Your task to perform on an android device: read, delete, or share a saved page in the chrome app Image 0: 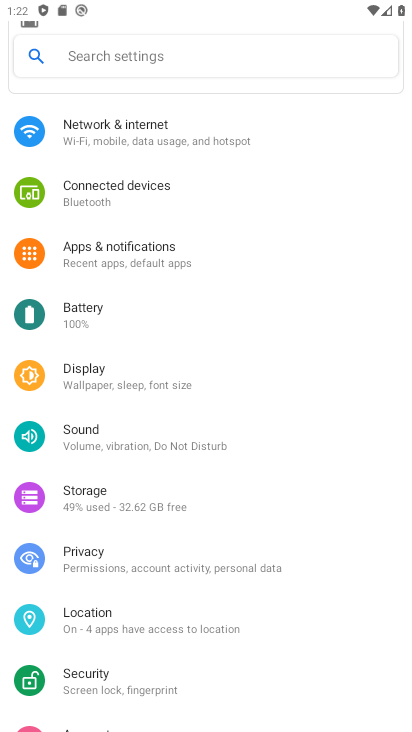
Step 0: press home button
Your task to perform on an android device: read, delete, or share a saved page in the chrome app Image 1: 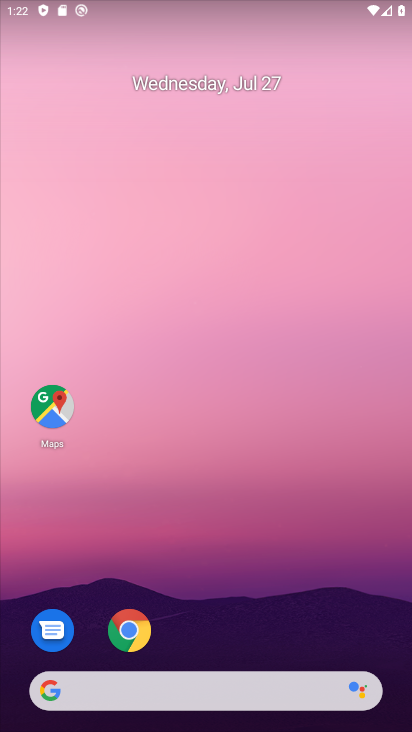
Step 1: click (132, 630)
Your task to perform on an android device: read, delete, or share a saved page in the chrome app Image 2: 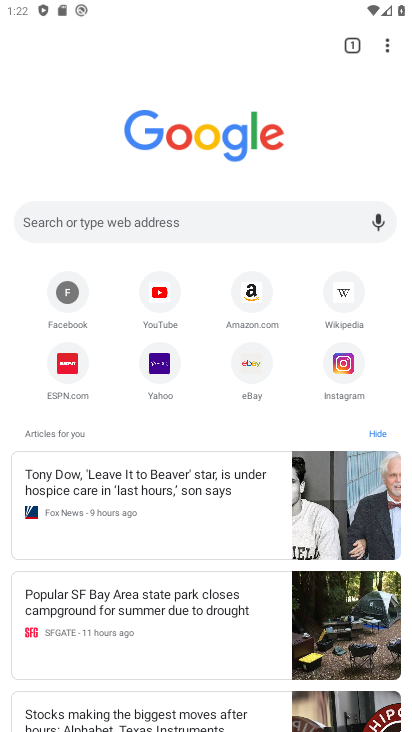
Step 2: click (386, 51)
Your task to perform on an android device: read, delete, or share a saved page in the chrome app Image 3: 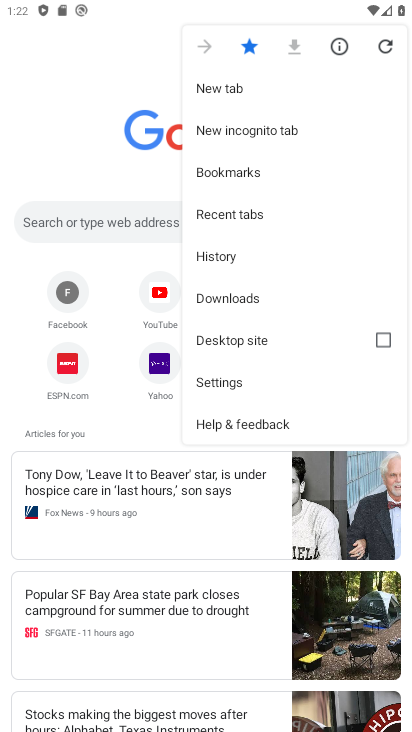
Step 3: click (223, 305)
Your task to perform on an android device: read, delete, or share a saved page in the chrome app Image 4: 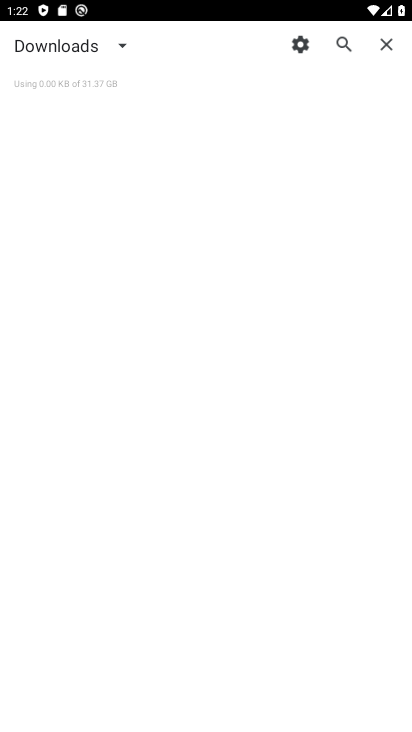
Step 4: click (119, 48)
Your task to perform on an android device: read, delete, or share a saved page in the chrome app Image 5: 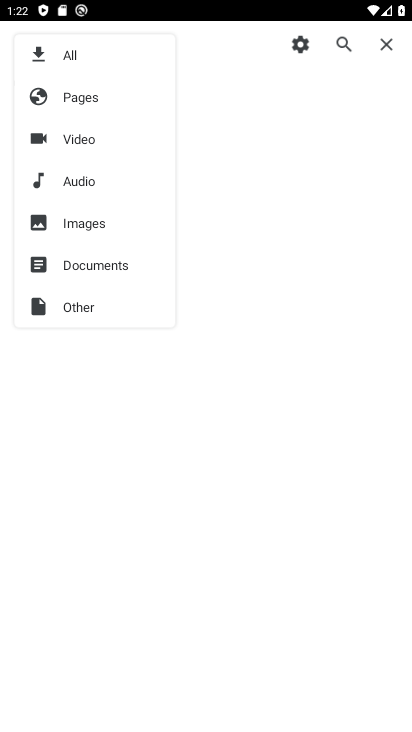
Step 5: click (79, 93)
Your task to perform on an android device: read, delete, or share a saved page in the chrome app Image 6: 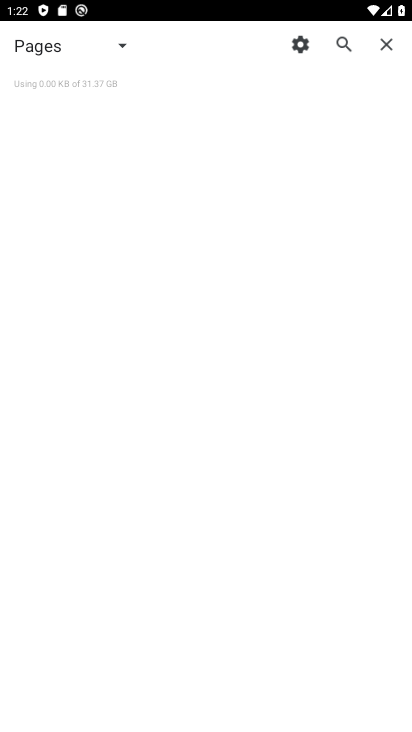
Step 6: task complete